Your task to perform on an android device: turn off smart reply in the gmail app Image 0: 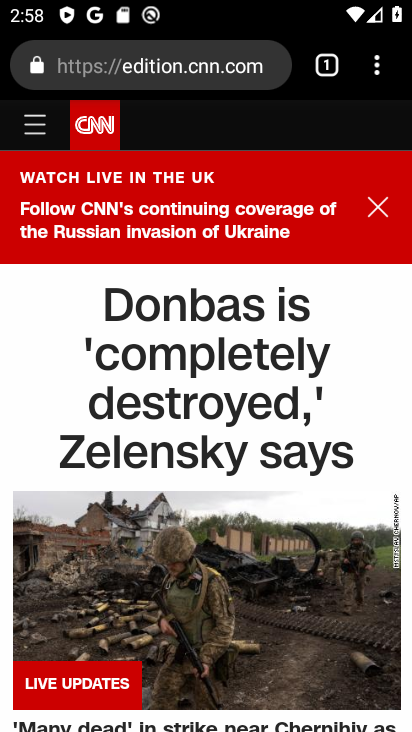
Step 0: press home button
Your task to perform on an android device: turn off smart reply in the gmail app Image 1: 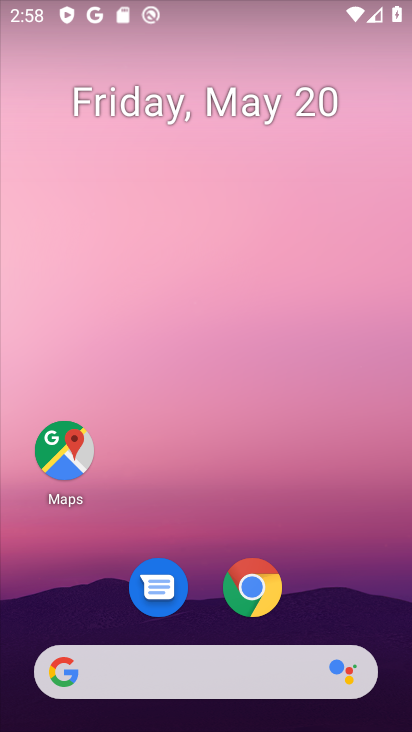
Step 1: drag from (183, 683) to (272, 217)
Your task to perform on an android device: turn off smart reply in the gmail app Image 2: 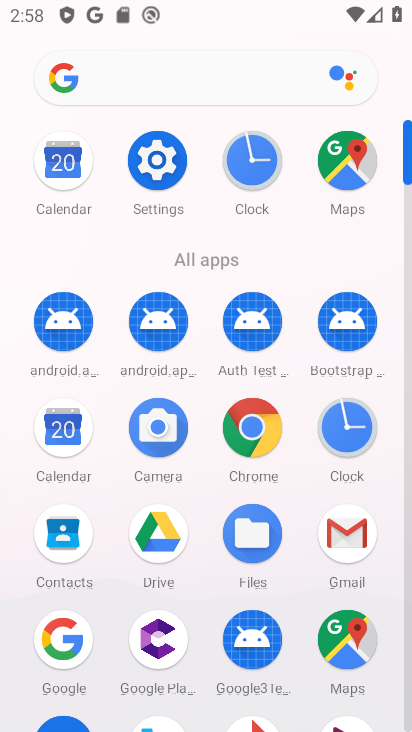
Step 2: click (343, 540)
Your task to perform on an android device: turn off smart reply in the gmail app Image 3: 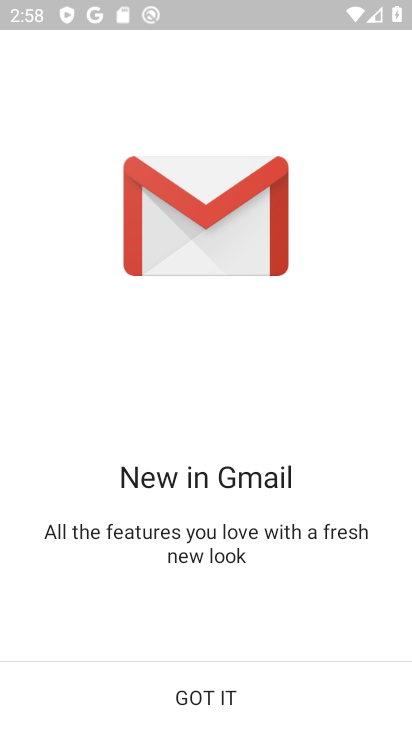
Step 3: click (230, 689)
Your task to perform on an android device: turn off smart reply in the gmail app Image 4: 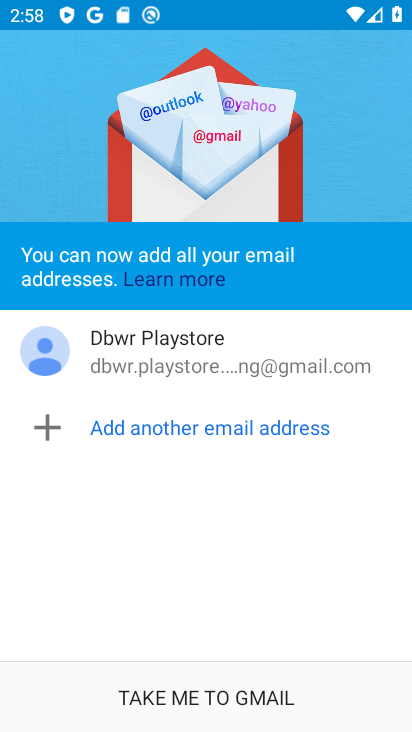
Step 4: click (229, 689)
Your task to perform on an android device: turn off smart reply in the gmail app Image 5: 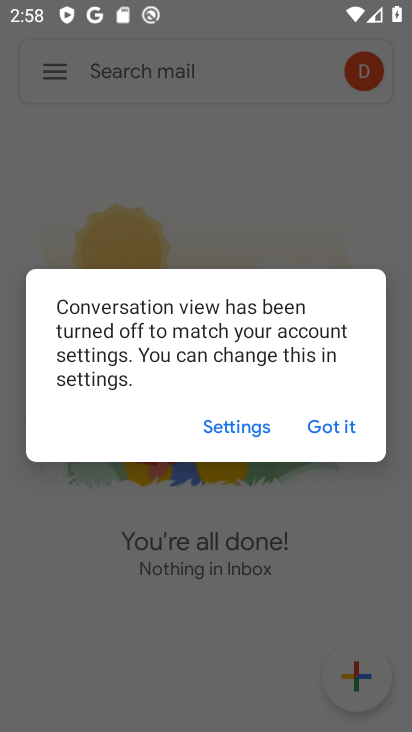
Step 5: click (331, 432)
Your task to perform on an android device: turn off smart reply in the gmail app Image 6: 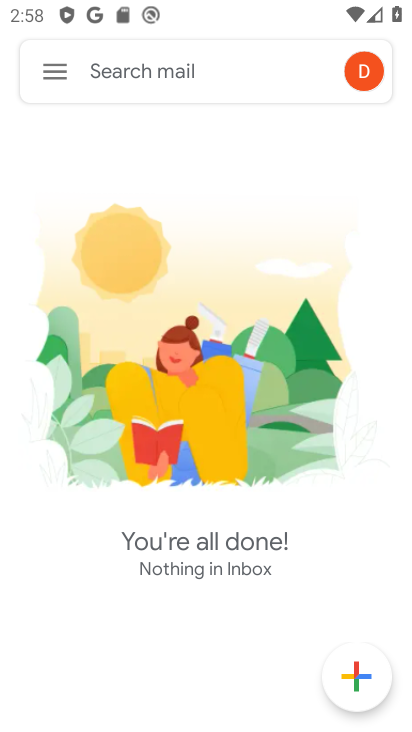
Step 6: click (53, 68)
Your task to perform on an android device: turn off smart reply in the gmail app Image 7: 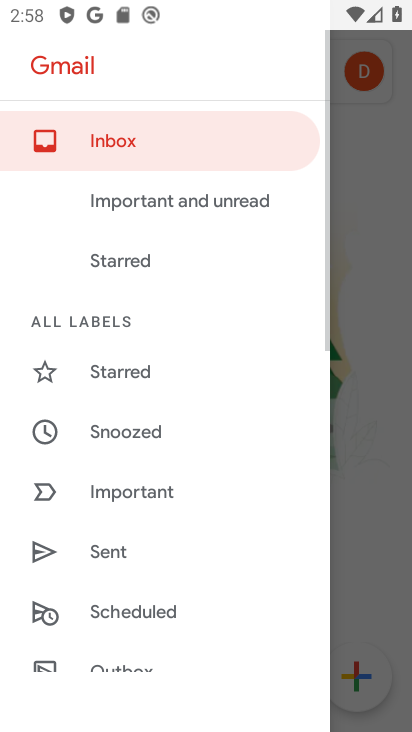
Step 7: drag from (198, 653) to (283, 101)
Your task to perform on an android device: turn off smart reply in the gmail app Image 8: 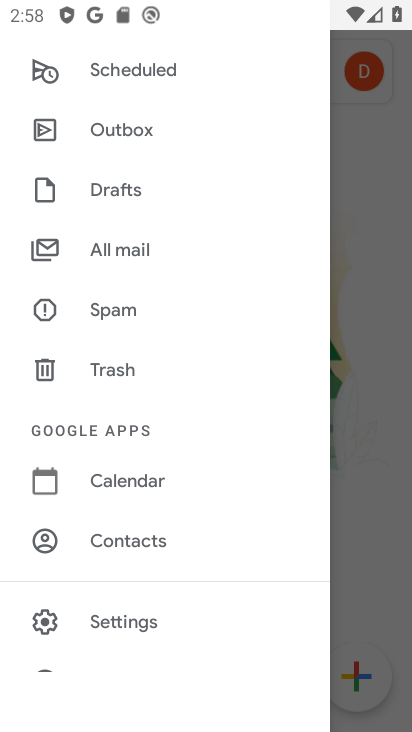
Step 8: click (115, 621)
Your task to perform on an android device: turn off smart reply in the gmail app Image 9: 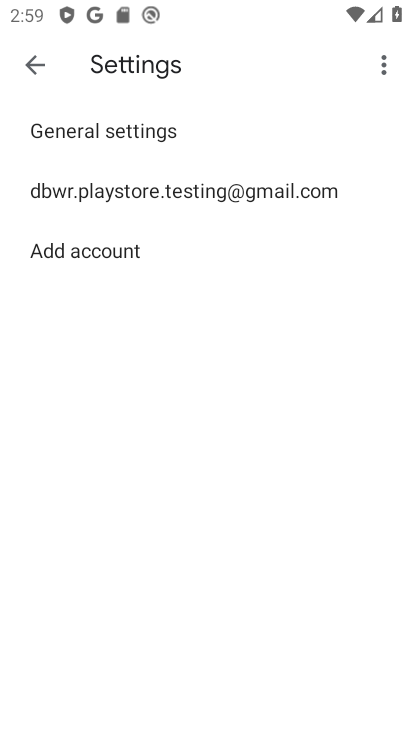
Step 9: click (249, 184)
Your task to perform on an android device: turn off smart reply in the gmail app Image 10: 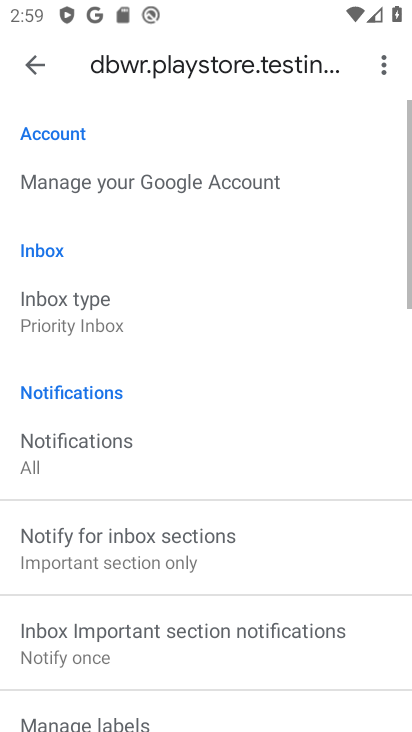
Step 10: drag from (215, 664) to (356, 134)
Your task to perform on an android device: turn off smart reply in the gmail app Image 11: 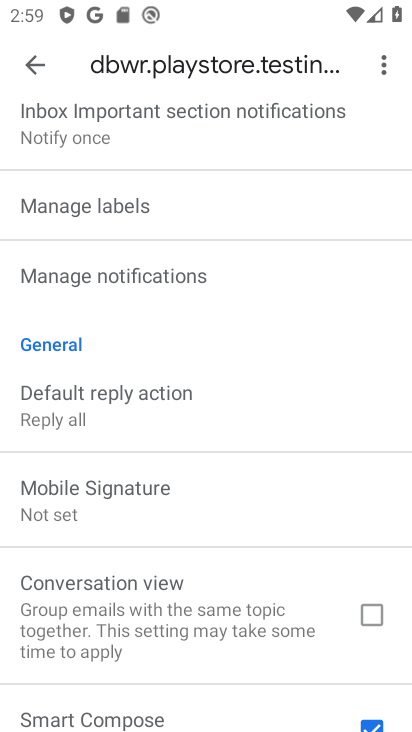
Step 11: drag from (238, 691) to (371, 217)
Your task to perform on an android device: turn off smart reply in the gmail app Image 12: 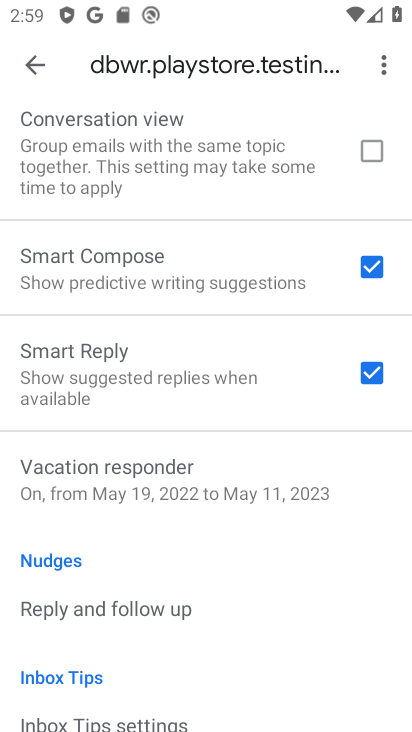
Step 12: click (372, 380)
Your task to perform on an android device: turn off smart reply in the gmail app Image 13: 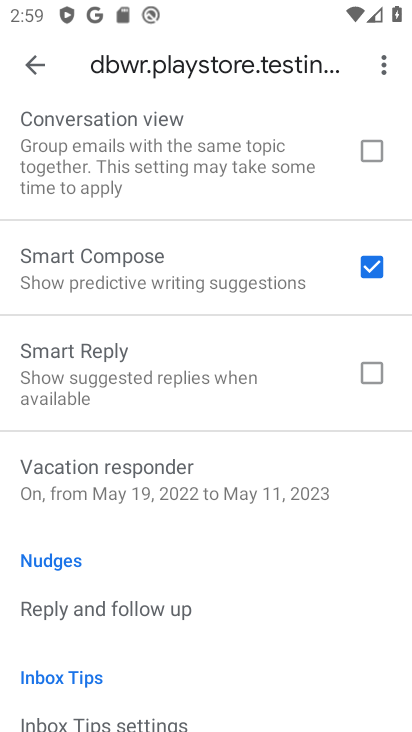
Step 13: task complete